Your task to perform on an android device: turn off translation in the chrome app Image 0: 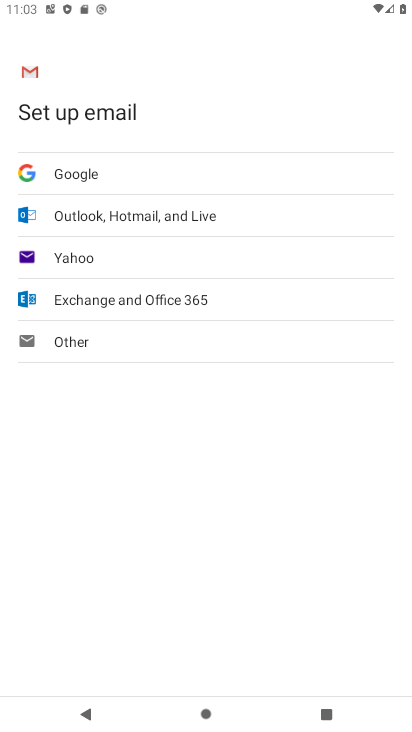
Step 0: press home button
Your task to perform on an android device: turn off translation in the chrome app Image 1: 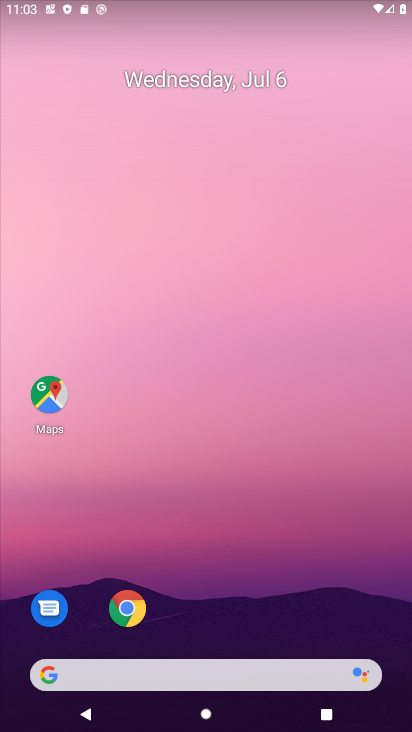
Step 1: click (113, 612)
Your task to perform on an android device: turn off translation in the chrome app Image 2: 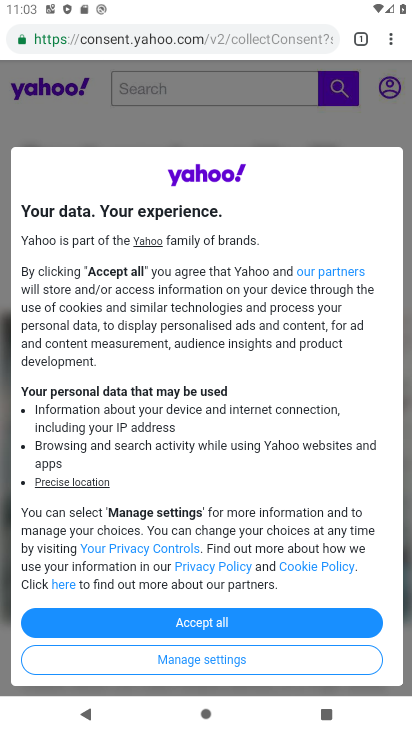
Step 2: click (386, 46)
Your task to perform on an android device: turn off translation in the chrome app Image 3: 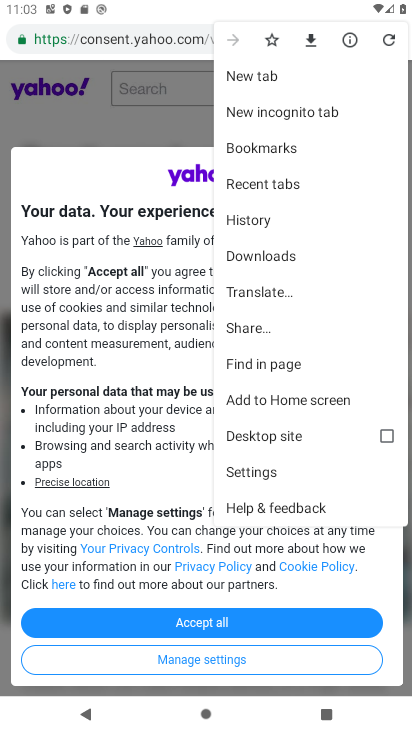
Step 3: click (253, 462)
Your task to perform on an android device: turn off translation in the chrome app Image 4: 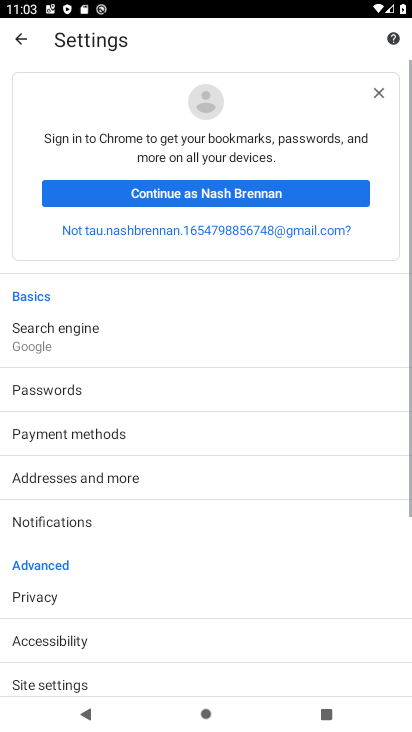
Step 4: click (253, 462)
Your task to perform on an android device: turn off translation in the chrome app Image 5: 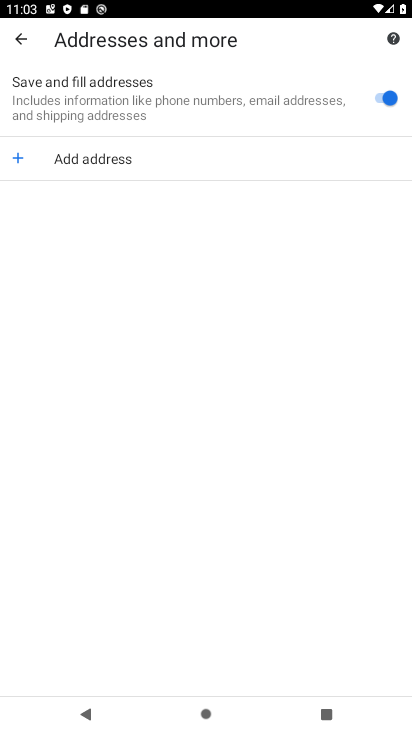
Step 5: click (17, 46)
Your task to perform on an android device: turn off translation in the chrome app Image 6: 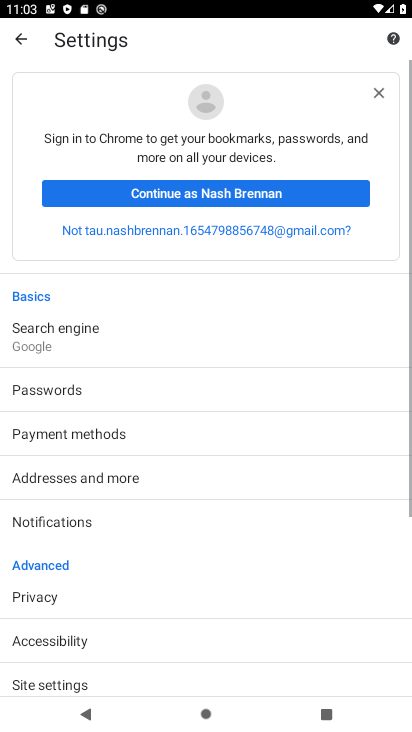
Step 6: drag from (217, 583) to (73, 74)
Your task to perform on an android device: turn off translation in the chrome app Image 7: 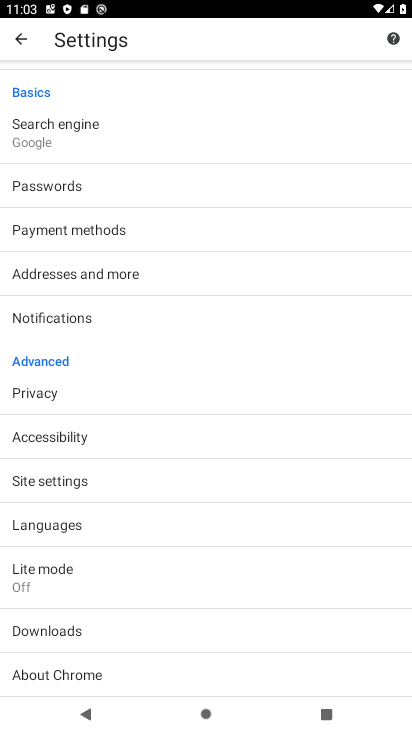
Step 7: click (78, 539)
Your task to perform on an android device: turn off translation in the chrome app Image 8: 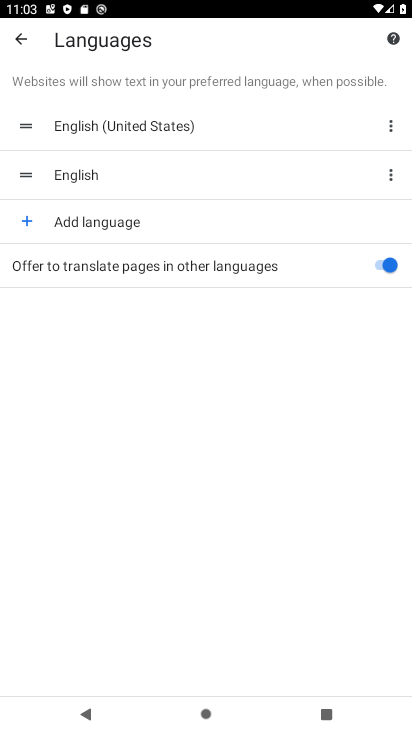
Step 8: click (380, 261)
Your task to perform on an android device: turn off translation in the chrome app Image 9: 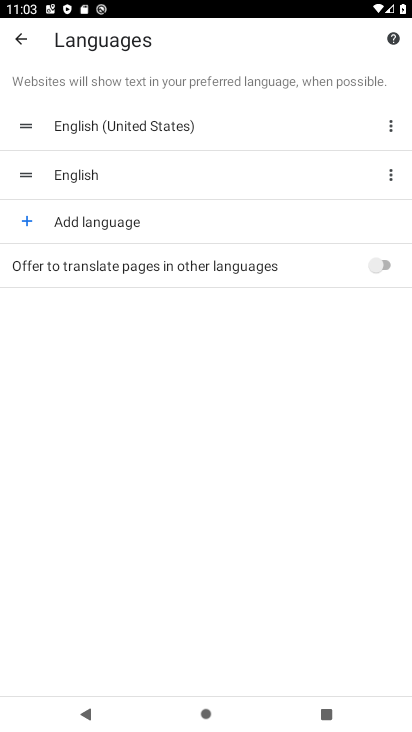
Step 9: task complete